Your task to perform on an android device: What's the weather? Image 0: 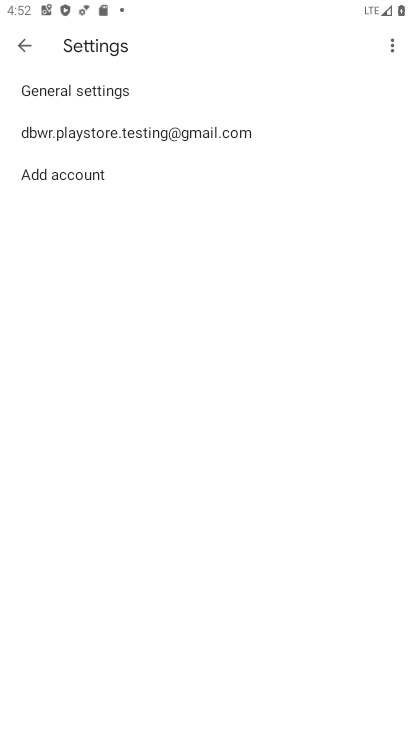
Step 0: press home button
Your task to perform on an android device: What's the weather? Image 1: 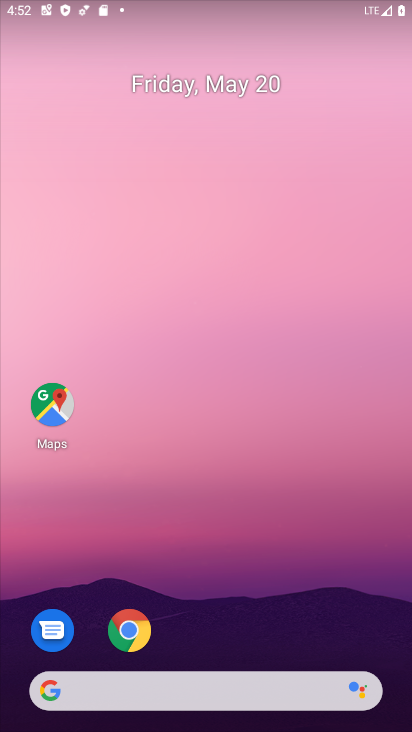
Step 1: click (247, 702)
Your task to perform on an android device: What's the weather? Image 2: 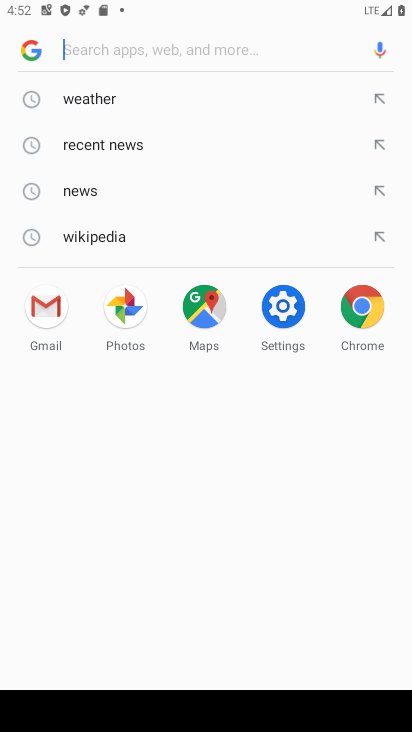
Step 2: click (79, 100)
Your task to perform on an android device: What's the weather? Image 3: 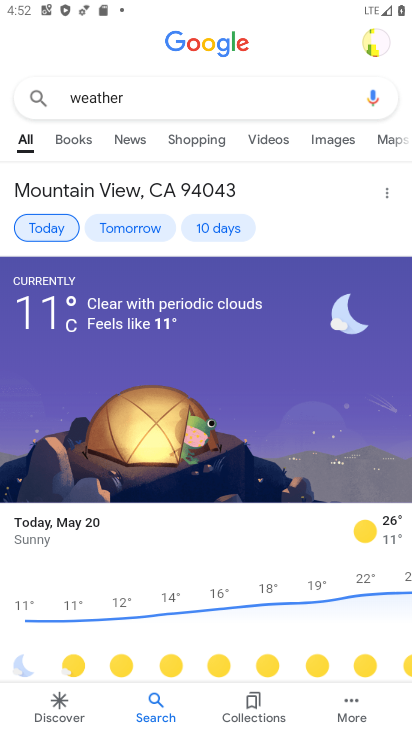
Step 3: click (54, 226)
Your task to perform on an android device: What's the weather? Image 4: 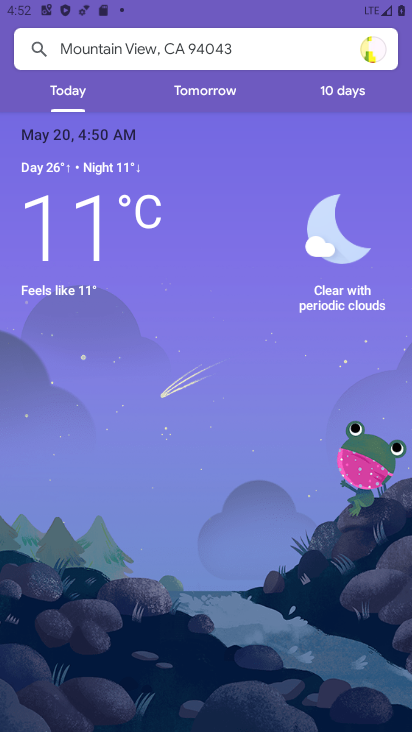
Step 4: task complete